Your task to perform on an android device: turn on sleep mode Image 0: 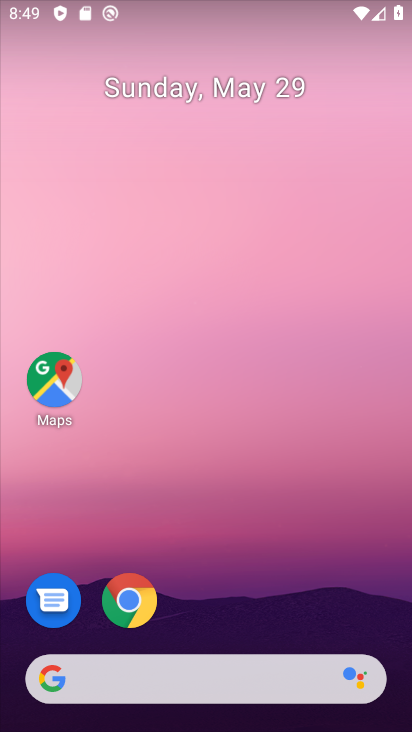
Step 0: drag from (221, 726) to (215, 135)
Your task to perform on an android device: turn on sleep mode Image 1: 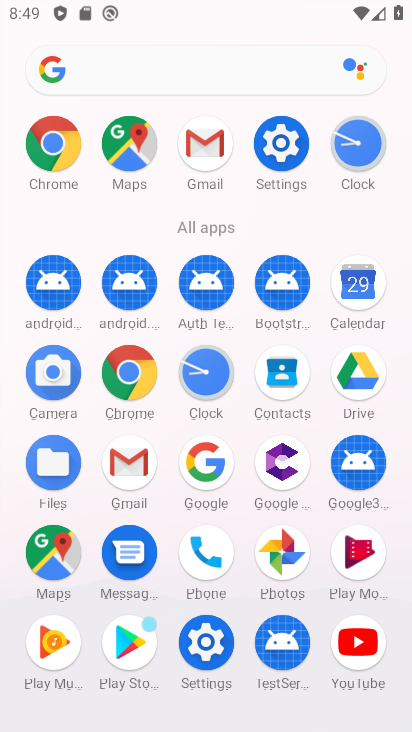
Step 1: click (280, 143)
Your task to perform on an android device: turn on sleep mode Image 2: 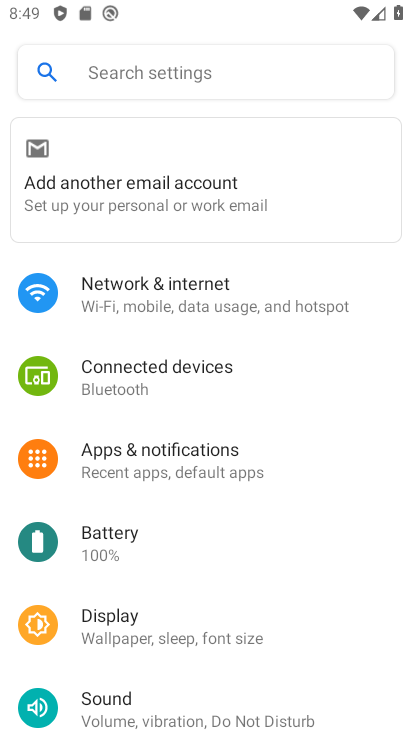
Step 2: task complete